Your task to perform on an android device: check battery use Image 0: 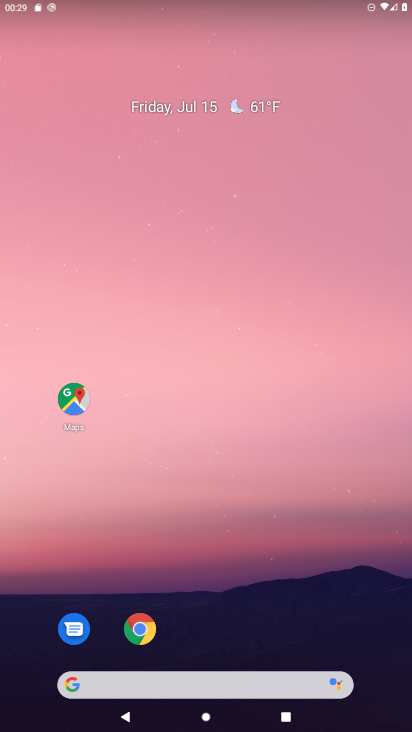
Step 0: drag from (200, 651) to (232, 116)
Your task to perform on an android device: check battery use Image 1: 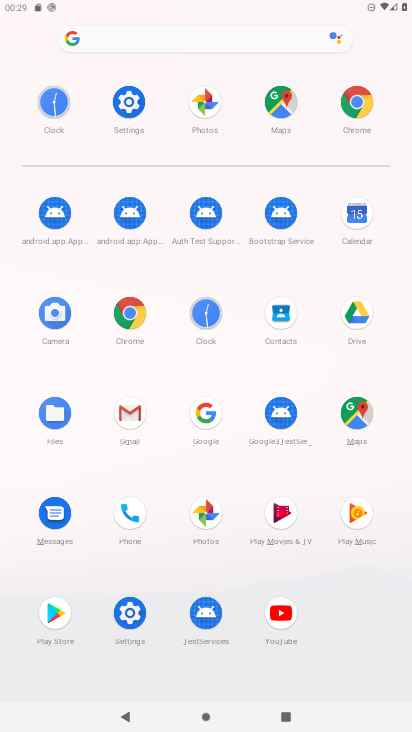
Step 1: click (139, 609)
Your task to perform on an android device: check battery use Image 2: 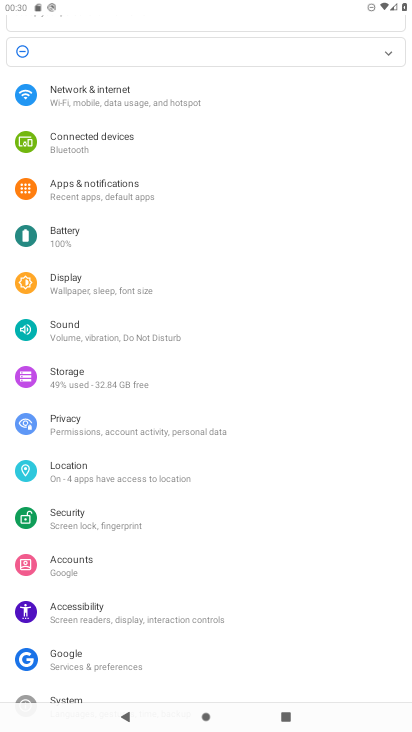
Step 2: click (105, 247)
Your task to perform on an android device: check battery use Image 3: 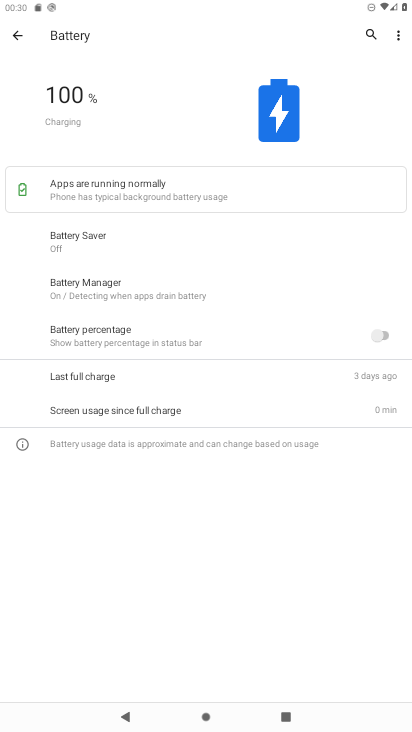
Step 3: click (399, 35)
Your task to perform on an android device: check battery use Image 4: 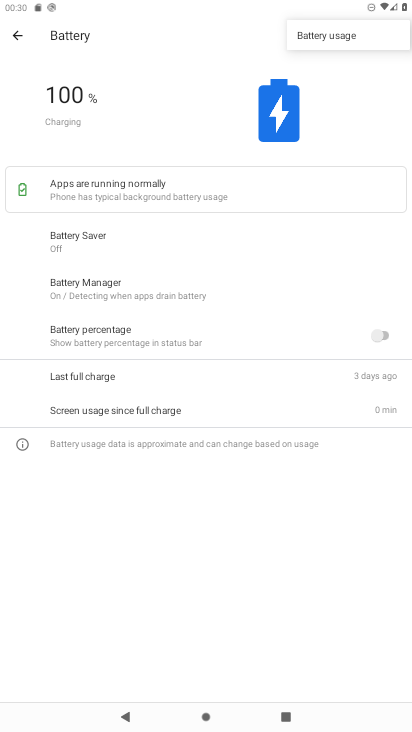
Step 4: click (320, 40)
Your task to perform on an android device: check battery use Image 5: 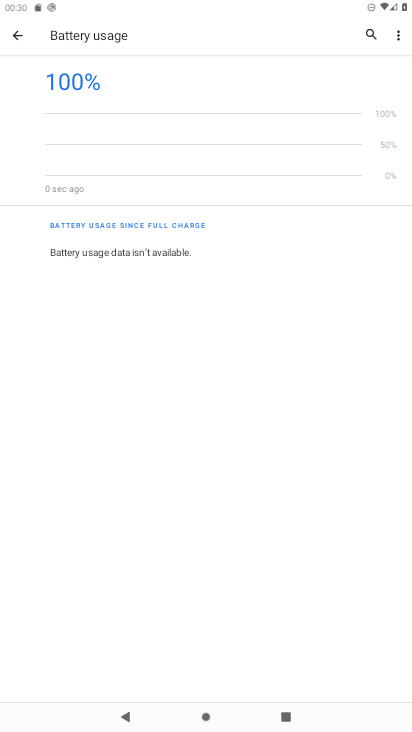
Step 5: task complete